Your task to perform on an android device: turn off improve location accuracy Image 0: 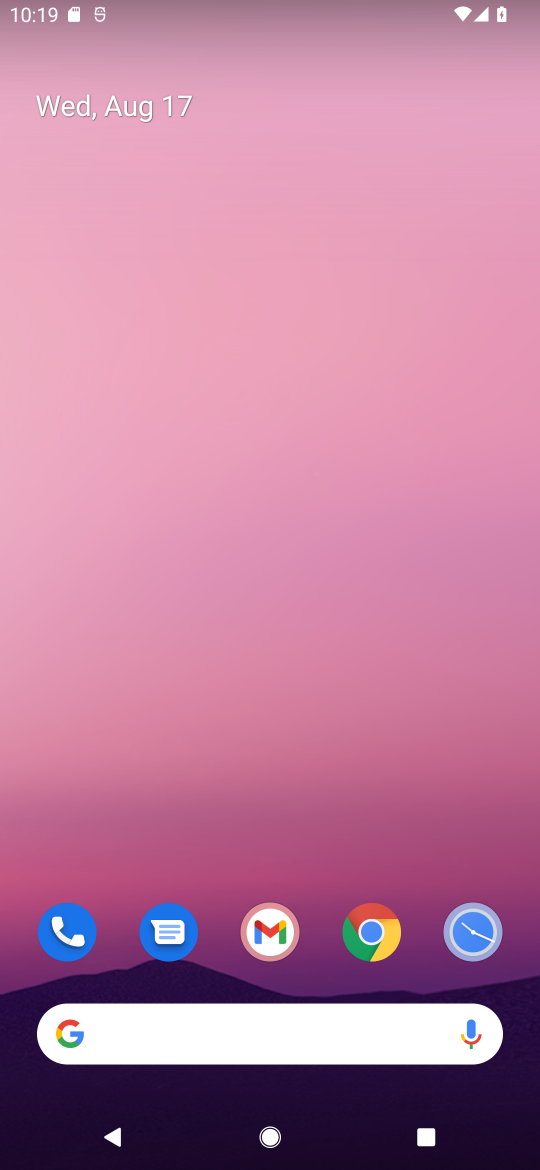
Step 0: drag from (292, 993) to (208, 143)
Your task to perform on an android device: turn off improve location accuracy Image 1: 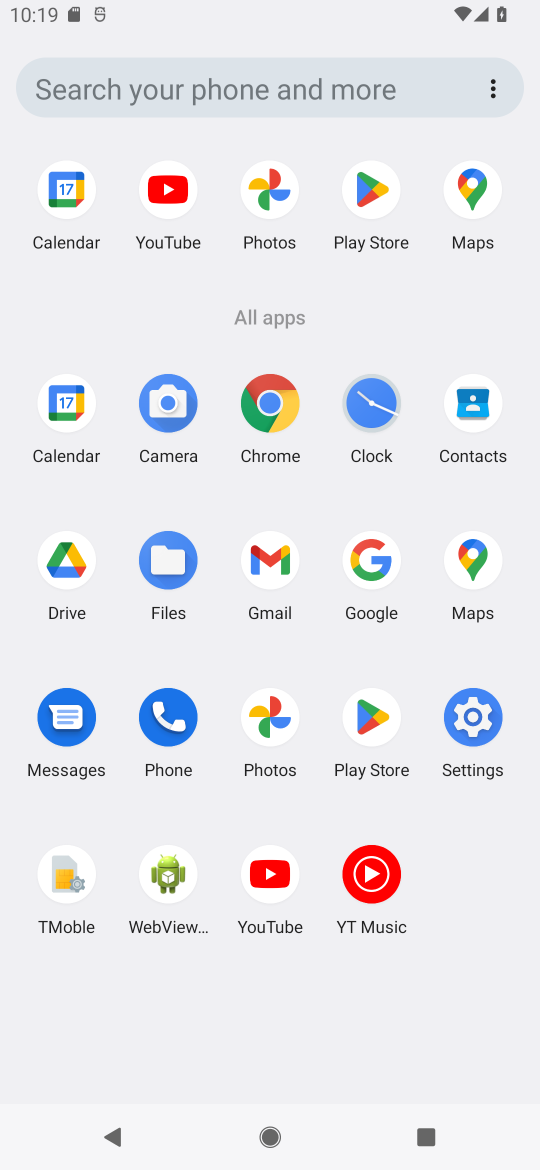
Step 1: click (484, 712)
Your task to perform on an android device: turn off improve location accuracy Image 2: 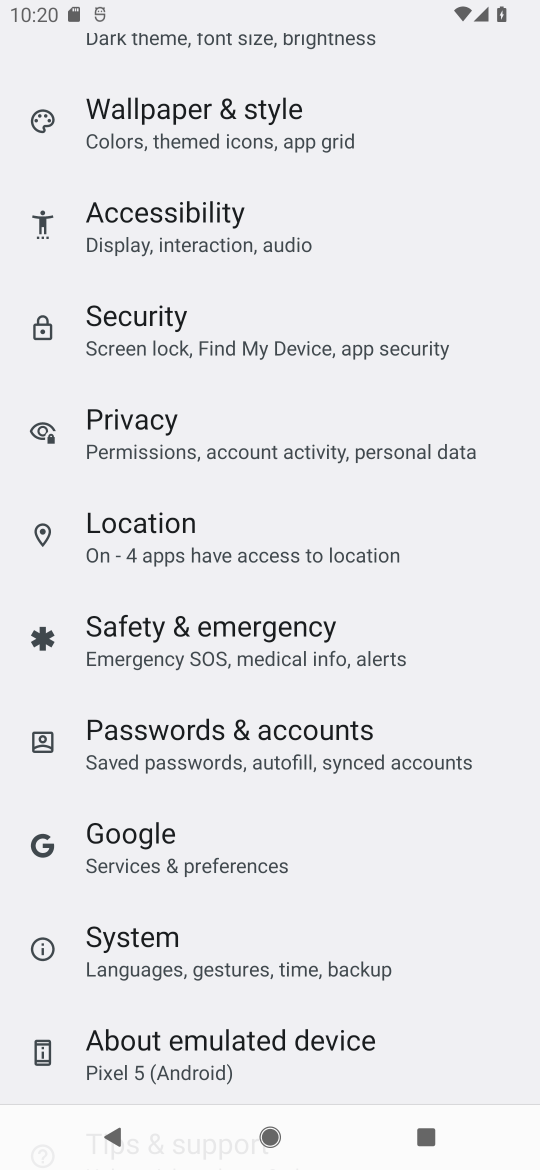
Step 2: click (148, 537)
Your task to perform on an android device: turn off improve location accuracy Image 3: 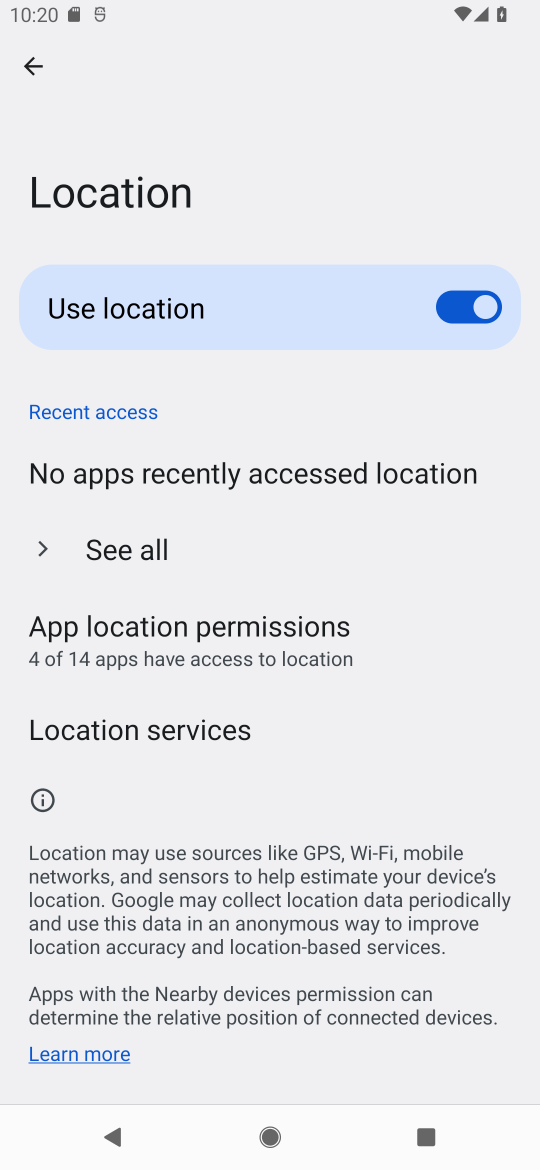
Step 3: drag from (189, 985) to (184, 384)
Your task to perform on an android device: turn off improve location accuracy Image 4: 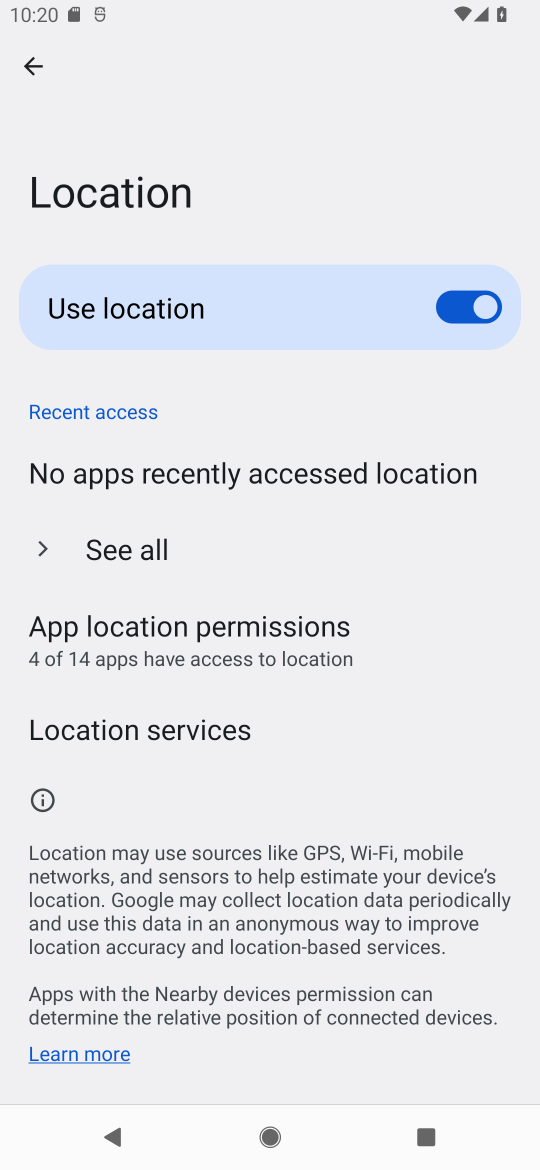
Step 4: click (169, 727)
Your task to perform on an android device: turn off improve location accuracy Image 5: 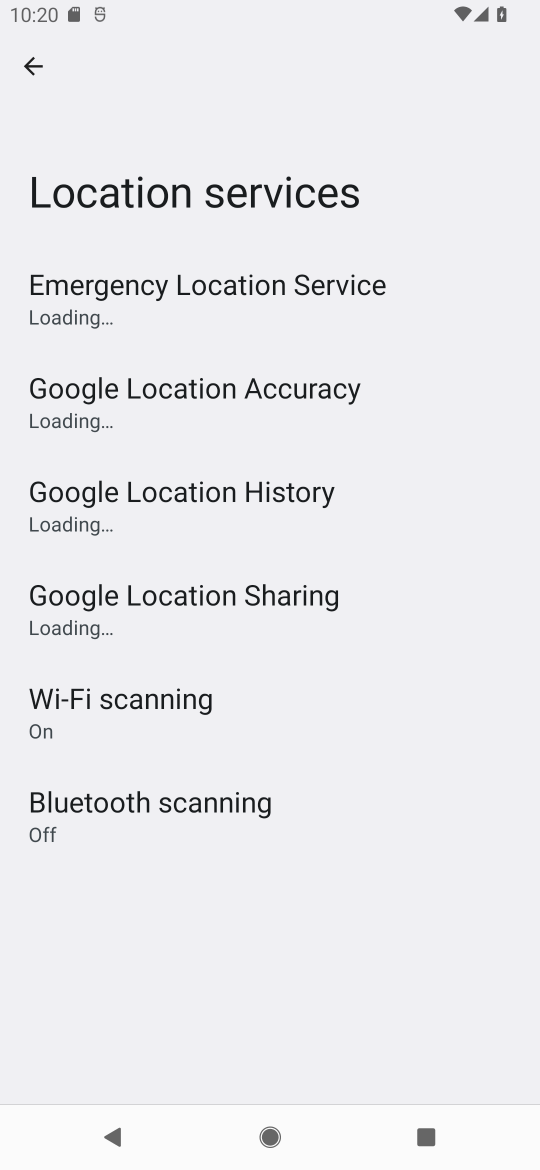
Step 5: click (266, 396)
Your task to perform on an android device: turn off improve location accuracy Image 6: 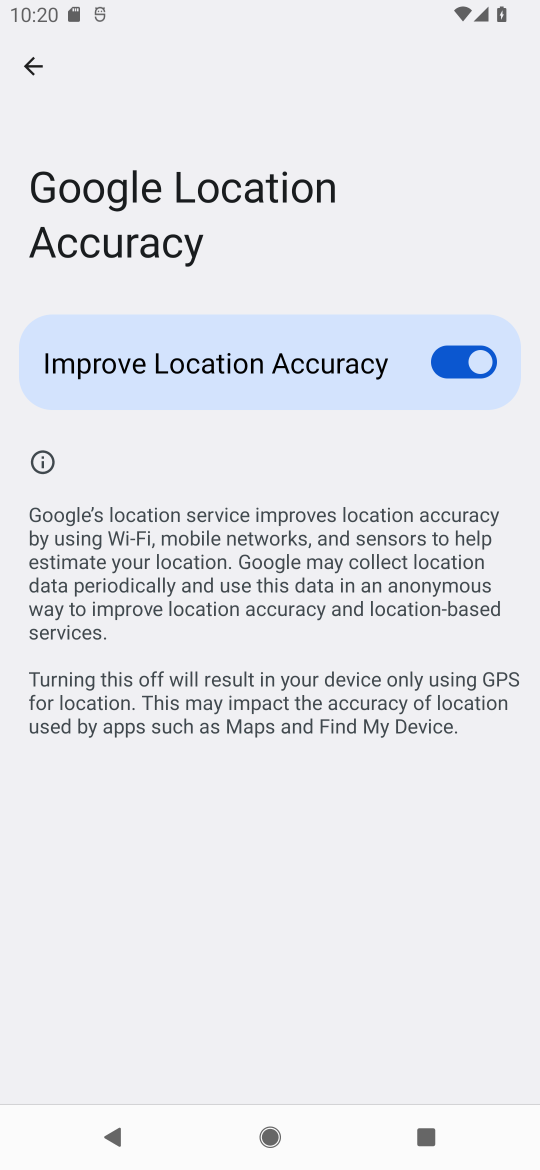
Step 6: task complete